Your task to perform on an android device: remove spam from my inbox in the gmail app Image 0: 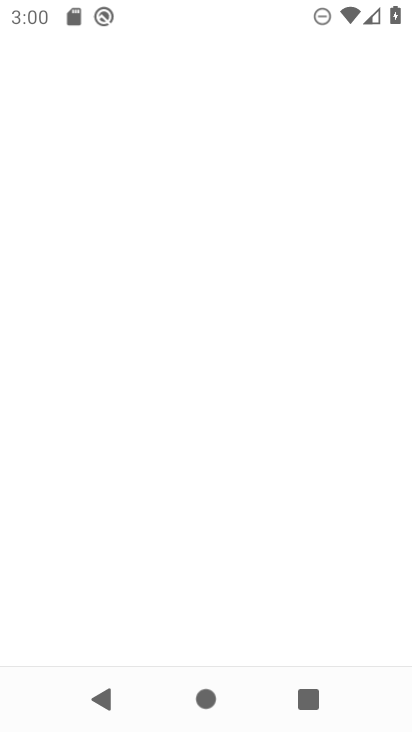
Step 0: drag from (169, 560) to (222, 241)
Your task to perform on an android device: remove spam from my inbox in the gmail app Image 1: 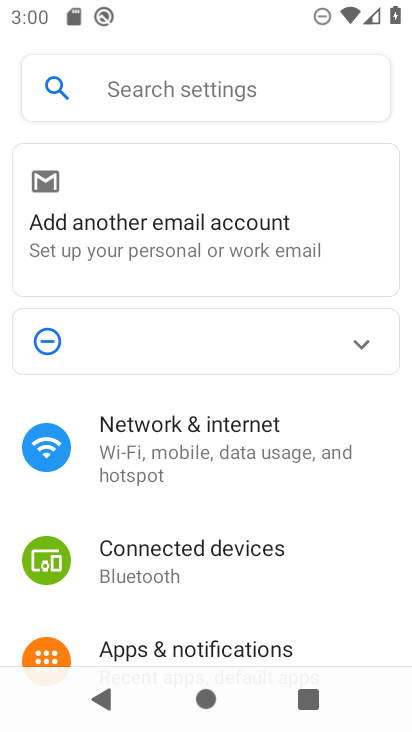
Step 1: press home button
Your task to perform on an android device: remove spam from my inbox in the gmail app Image 2: 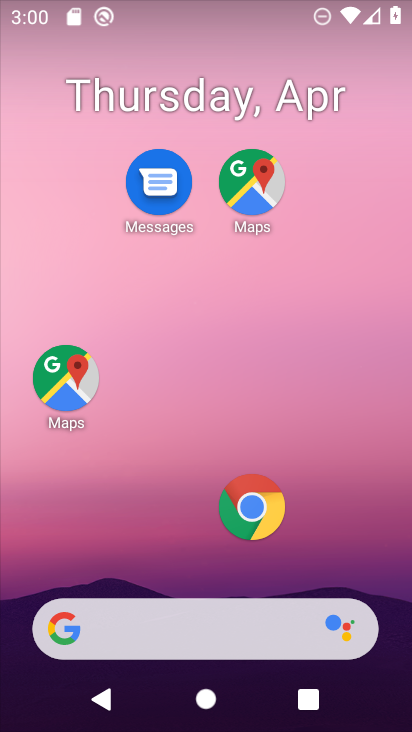
Step 2: drag from (171, 474) to (278, 3)
Your task to perform on an android device: remove spam from my inbox in the gmail app Image 3: 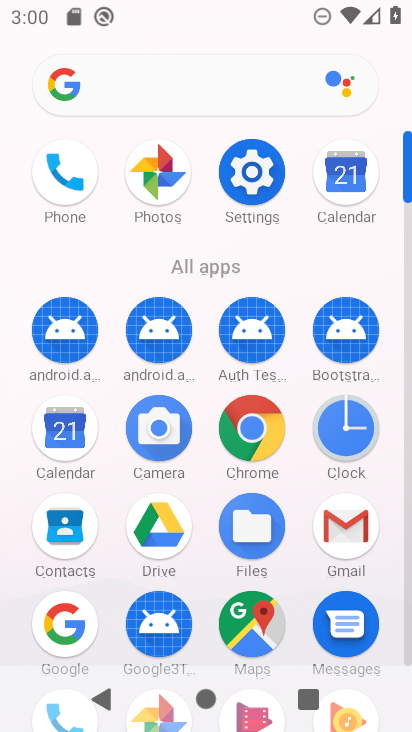
Step 3: click (360, 537)
Your task to perform on an android device: remove spam from my inbox in the gmail app Image 4: 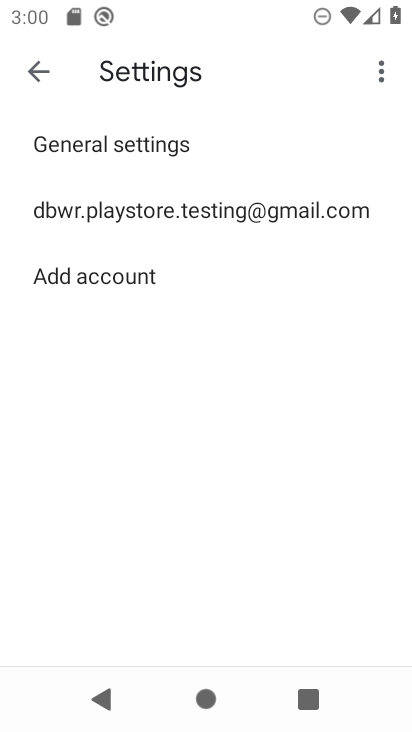
Step 4: click (27, 58)
Your task to perform on an android device: remove spam from my inbox in the gmail app Image 5: 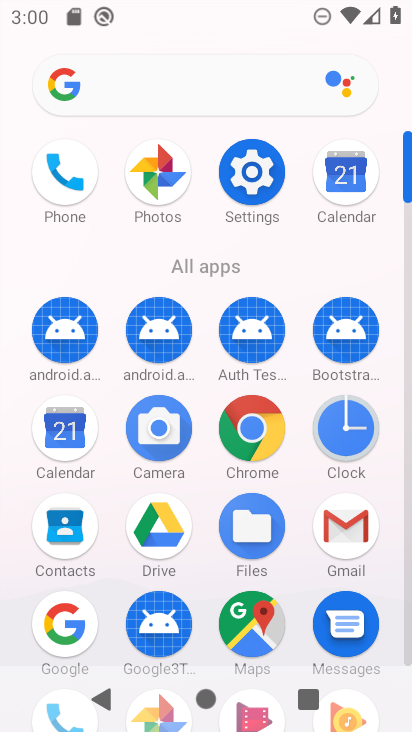
Step 5: click (333, 516)
Your task to perform on an android device: remove spam from my inbox in the gmail app Image 6: 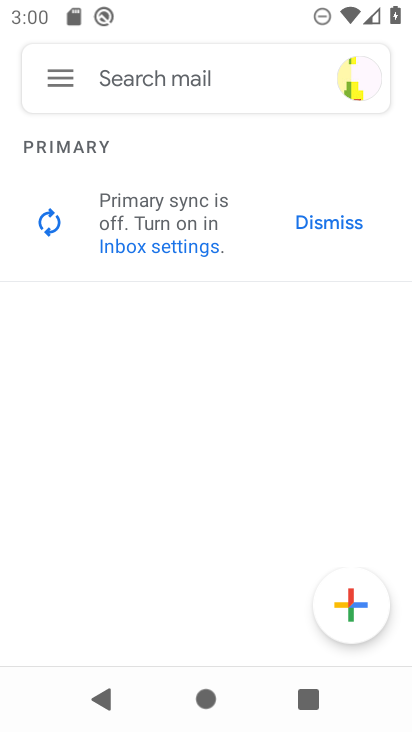
Step 6: click (48, 93)
Your task to perform on an android device: remove spam from my inbox in the gmail app Image 7: 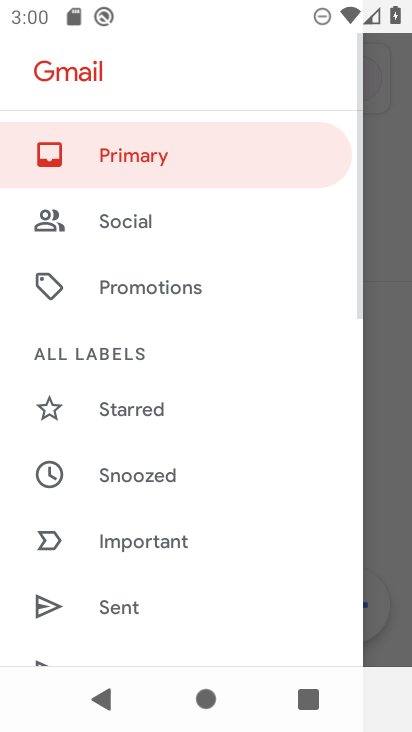
Step 7: drag from (144, 517) to (209, 184)
Your task to perform on an android device: remove spam from my inbox in the gmail app Image 8: 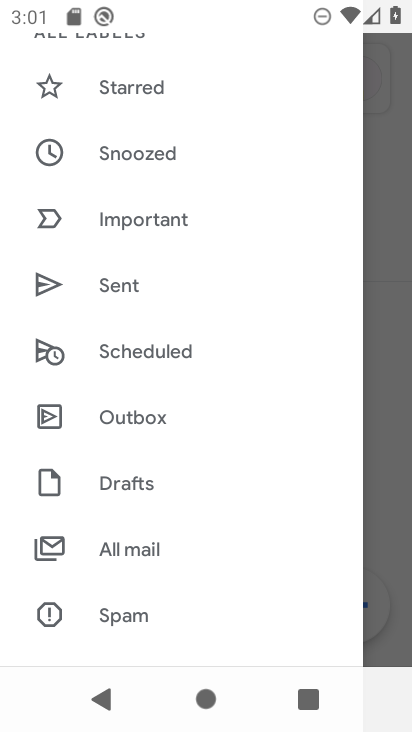
Step 8: click (135, 604)
Your task to perform on an android device: remove spam from my inbox in the gmail app Image 9: 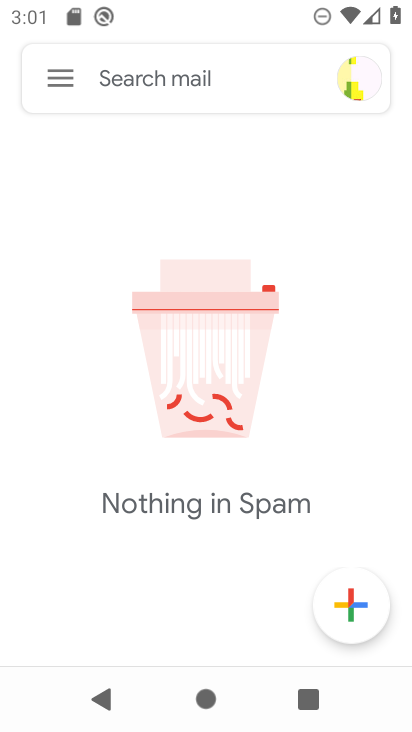
Step 9: task complete